Your task to perform on an android device: open app "Google Photos" (install if not already installed) Image 0: 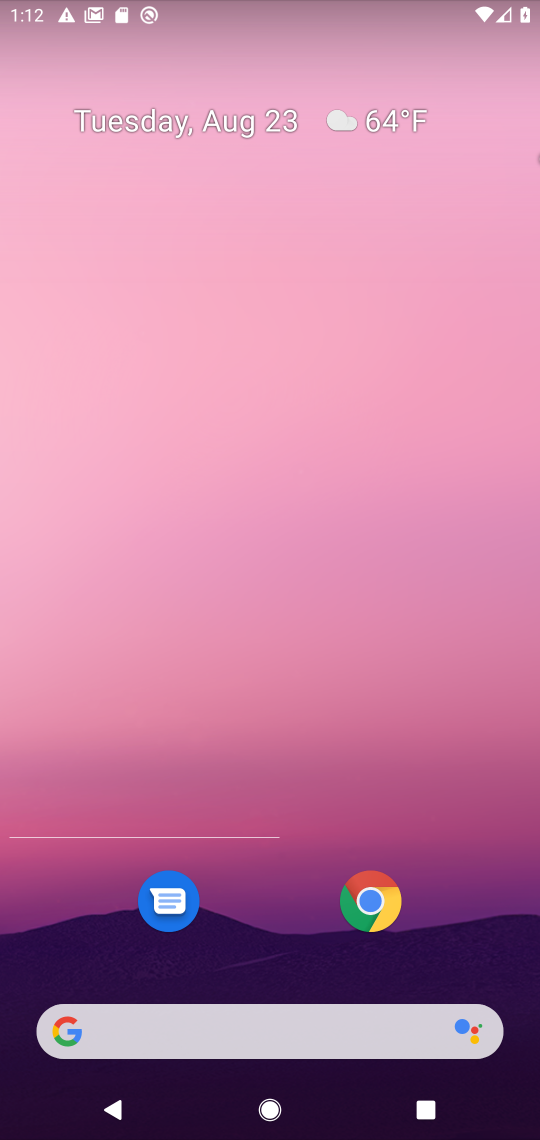
Step 0: drag from (281, 959) to (365, 72)
Your task to perform on an android device: open app "Google Photos" (install if not already installed) Image 1: 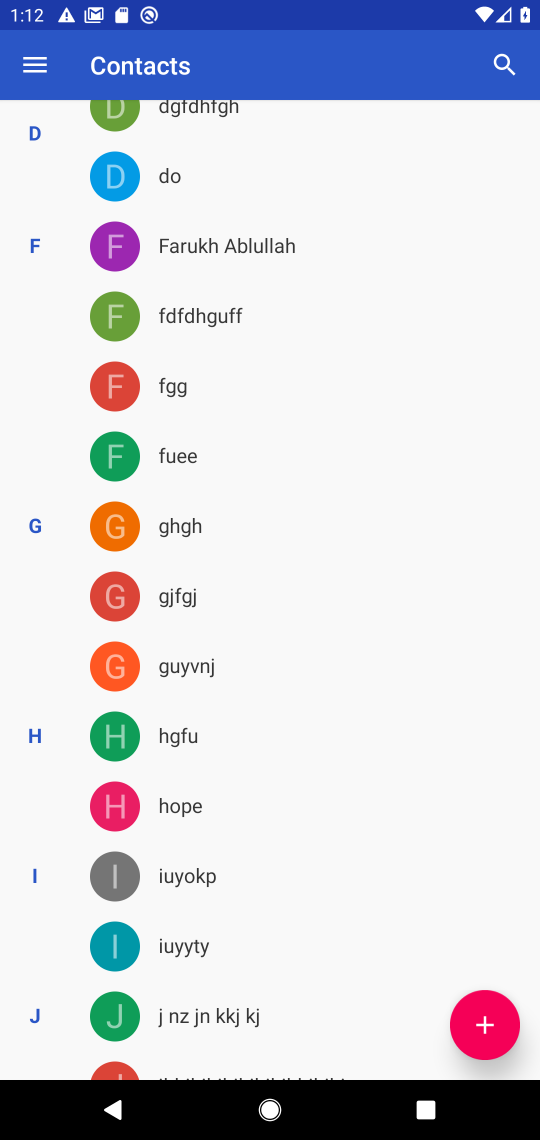
Step 1: press home button
Your task to perform on an android device: open app "Google Photos" (install if not already installed) Image 2: 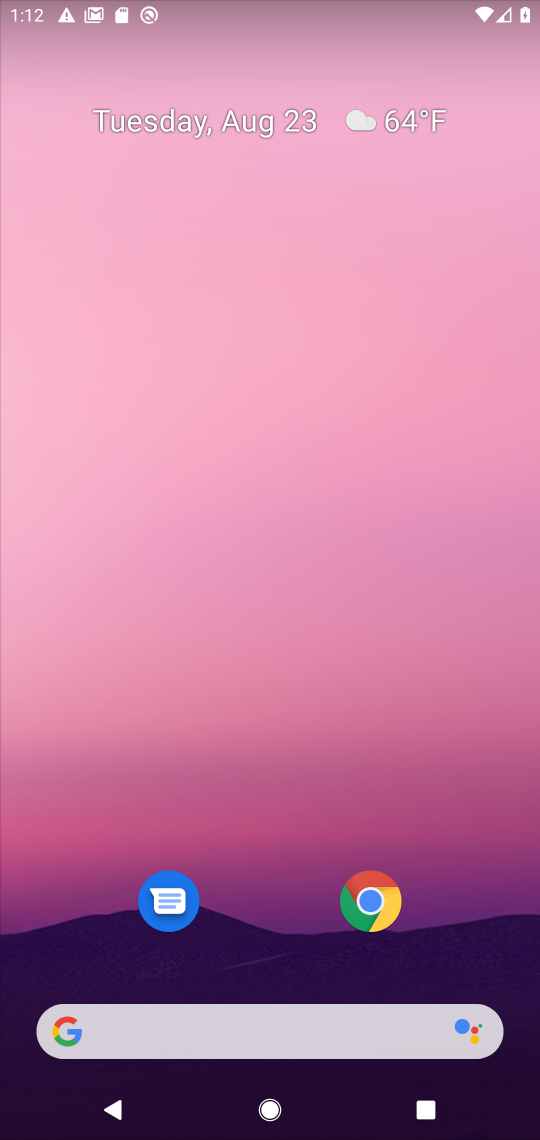
Step 2: drag from (293, 961) to (290, 82)
Your task to perform on an android device: open app "Google Photos" (install if not already installed) Image 3: 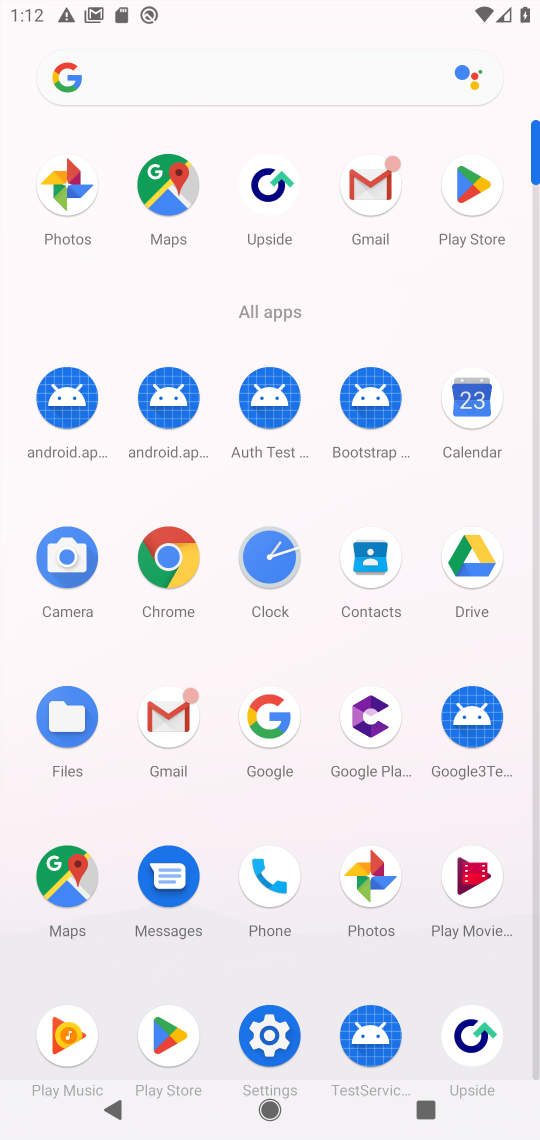
Step 3: click (473, 169)
Your task to perform on an android device: open app "Google Photos" (install if not already installed) Image 4: 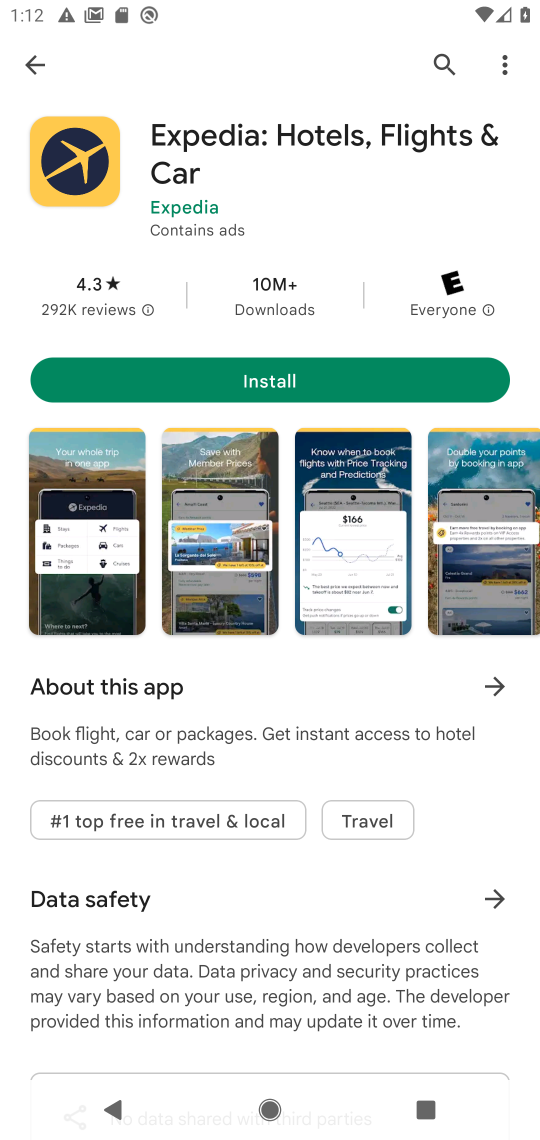
Step 4: click (444, 48)
Your task to perform on an android device: open app "Google Photos" (install if not already installed) Image 5: 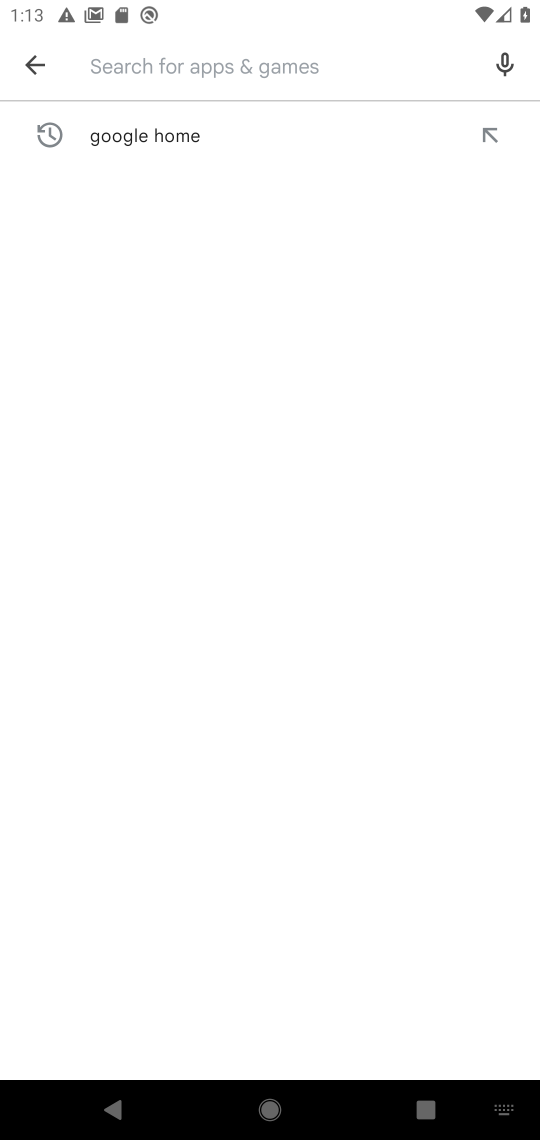
Step 5: type "Google Photos"
Your task to perform on an android device: open app "Google Photos" (install if not already installed) Image 6: 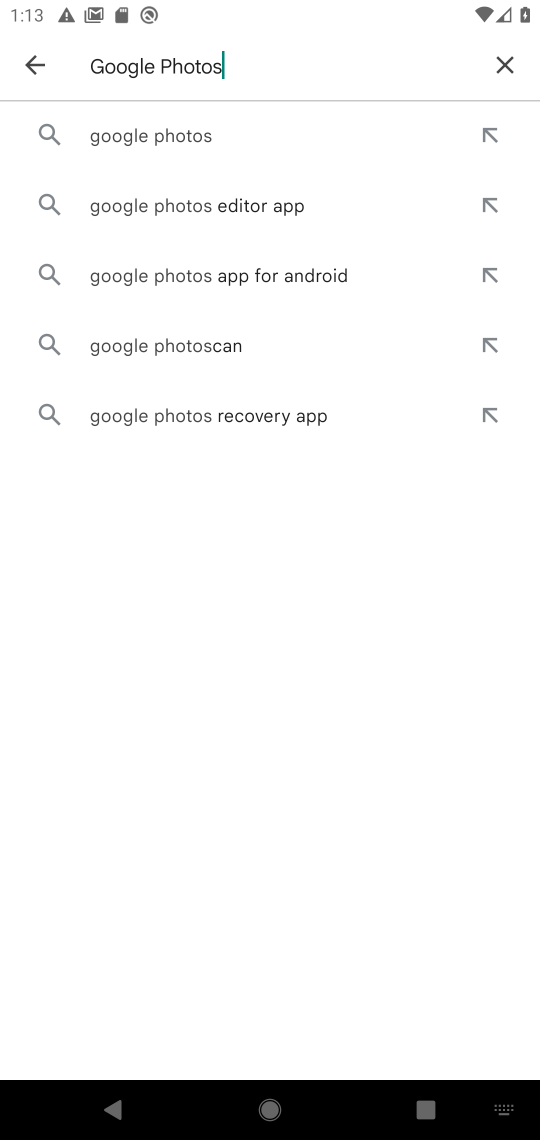
Step 6: click (258, 131)
Your task to perform on an android device: open app "Google Photos" (install if not already installed) Image 7: 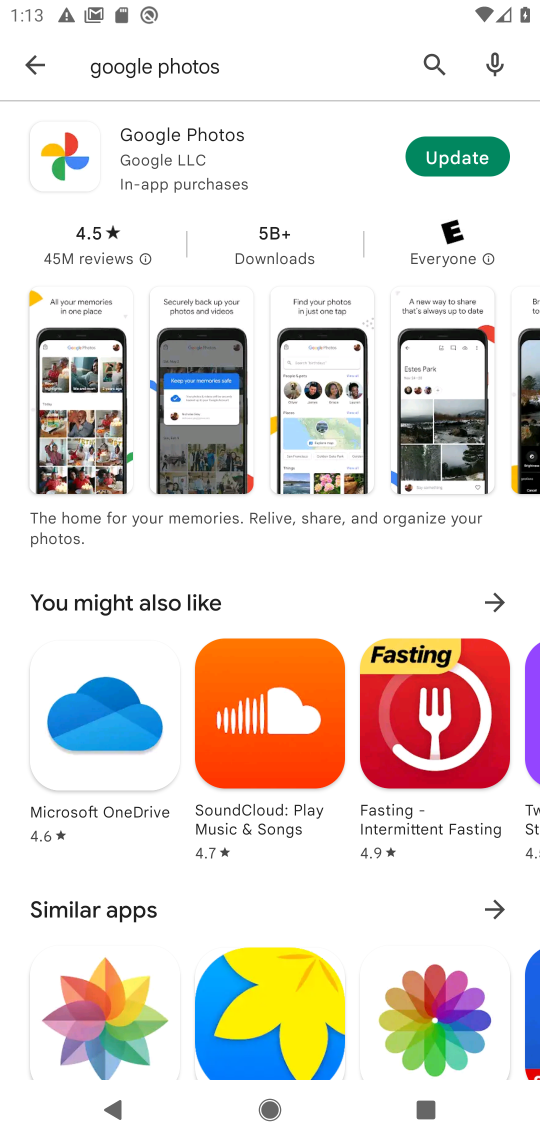
Step 7: click (471, 168)
Your task to perform on an android device: open app "Google Photos" (install if not already installed) Image 8: 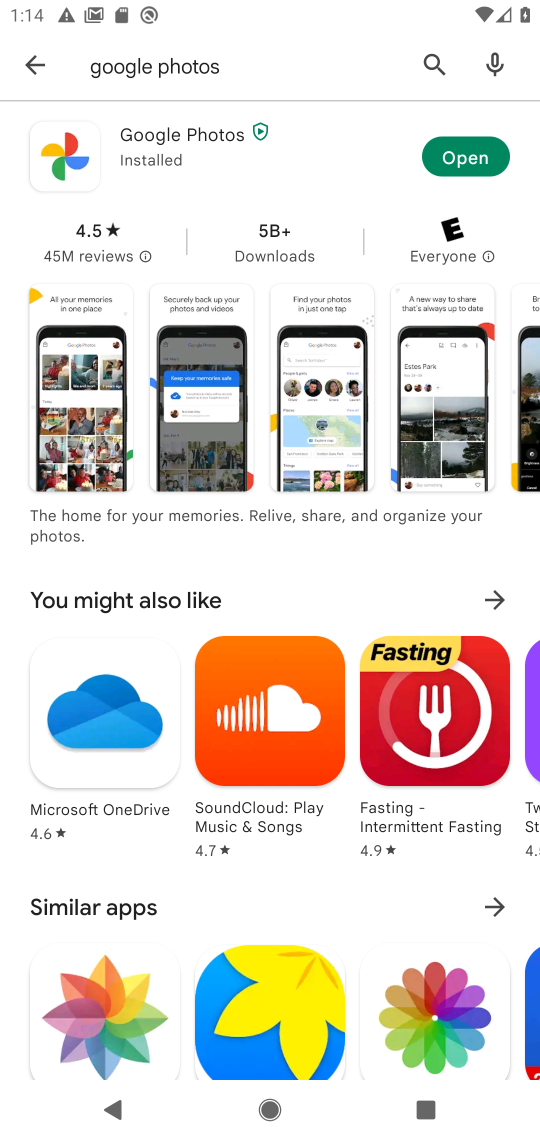
Step 8: click (444, 161)
Your task to perform on an android device: open app "Google Photos" (install if not already installed) Image 9: 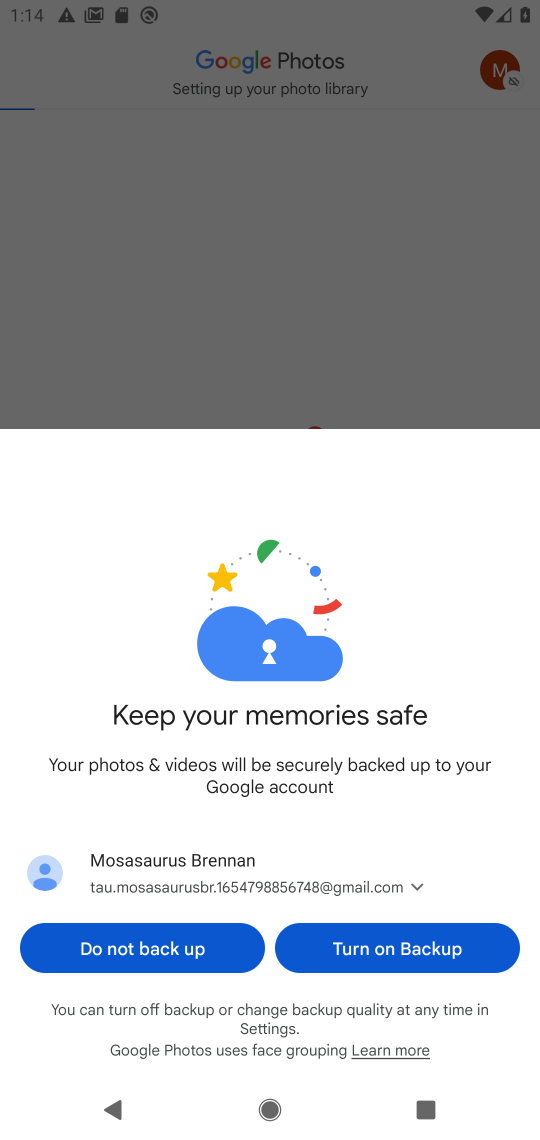
Step 9: click (448, 953)
Your task to perform on an android device: open app "Google Photos" (install if not already installed) Image 10: 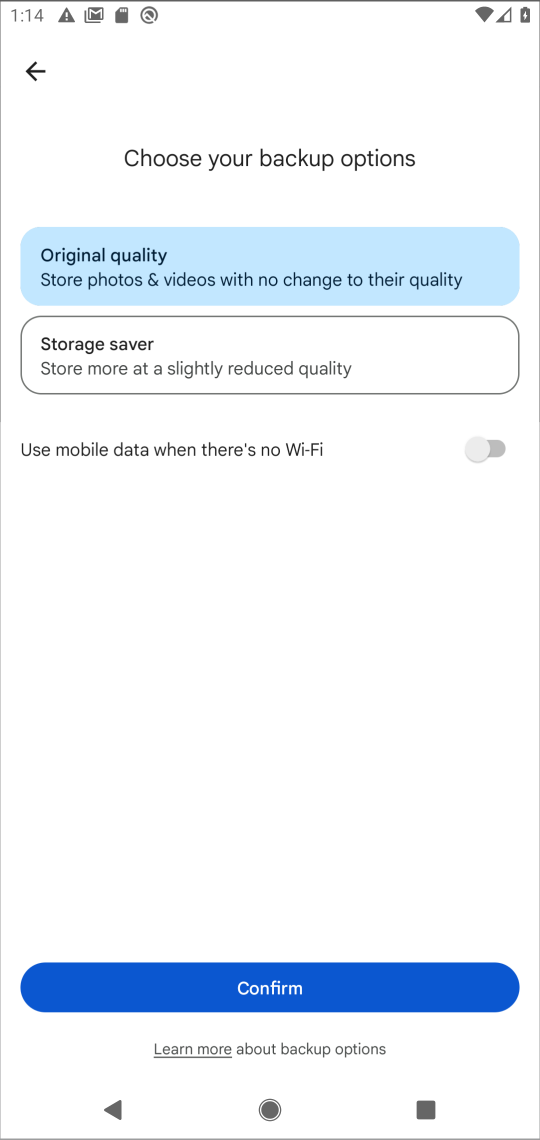
Step 10: task complete